Your task to perform on an android device: Is it going to rain tomorrow? Image 0: 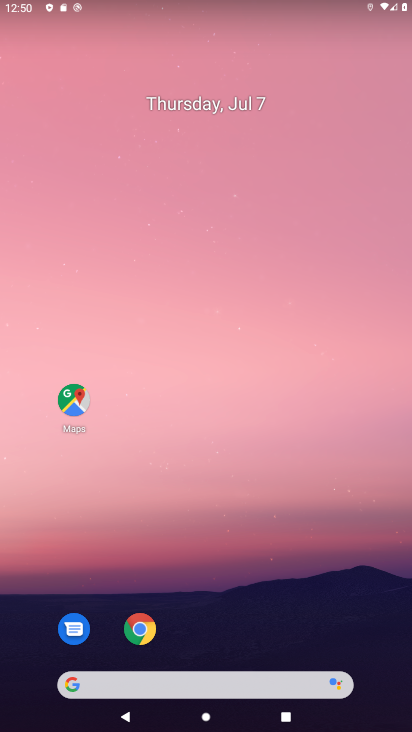
Step 0: drag from (212, 611) to (226, 135)
Your task to perform on an android device: Is it going to rain tomorrow? Image 1: 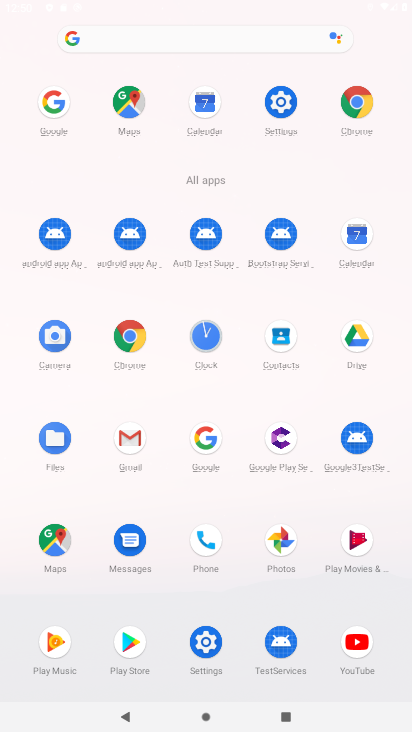
Step 1: click (353, 97)
Your task to perform on an android device: Is it going to rain tomorrow? Image 2: 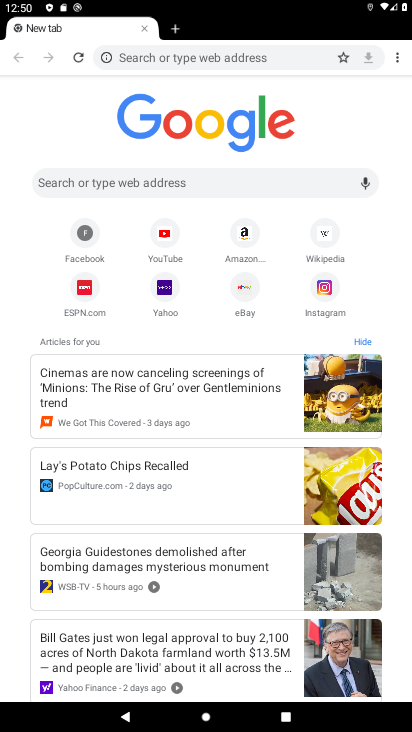
Step 2: click (160, 181)
Your task to perform on an android device: Is it going to rain tomorrow? Image 3: 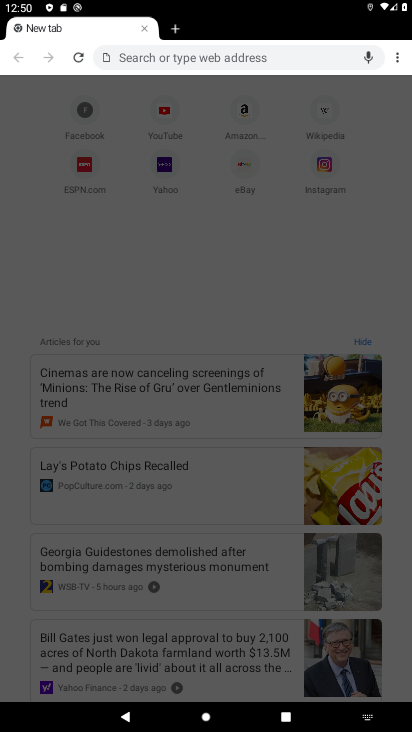
Step 3: type "Is it going to rain tomorrow?"
Your task to perform on an android device: Is it going to rain tomorrow? Image 4: 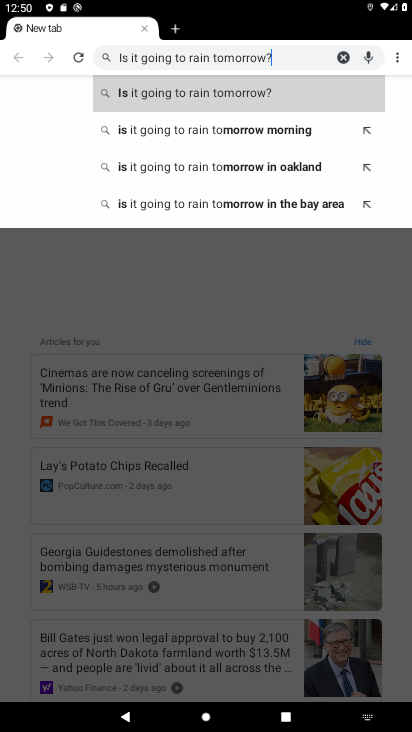
Step 4: click (251, 92)
Your task to perform on an android device: Is it going to rain tomorrow? Image 5: 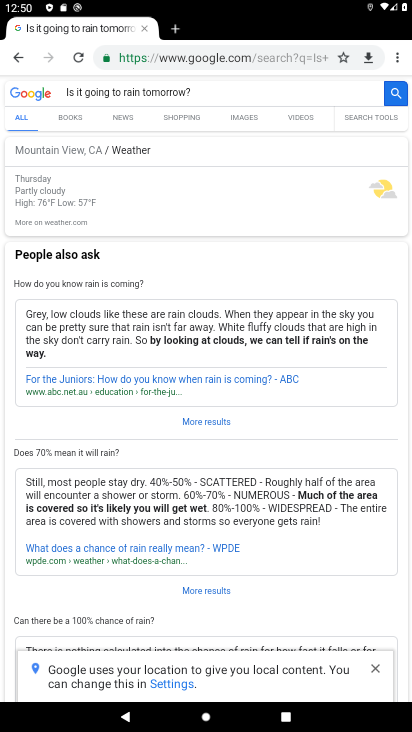
Step 5: task complete